Your task to perform on an android device: move a message to another label in the gmail app Image 0: 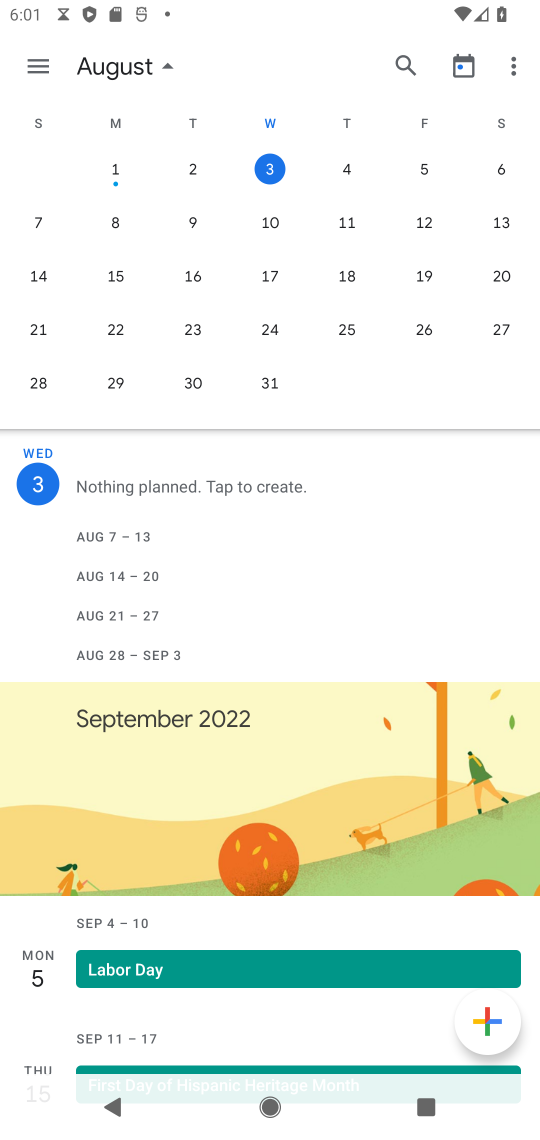
Step 0: press home button
Your task to perform on an android device: move a message to another label in the gmail app Image 1: 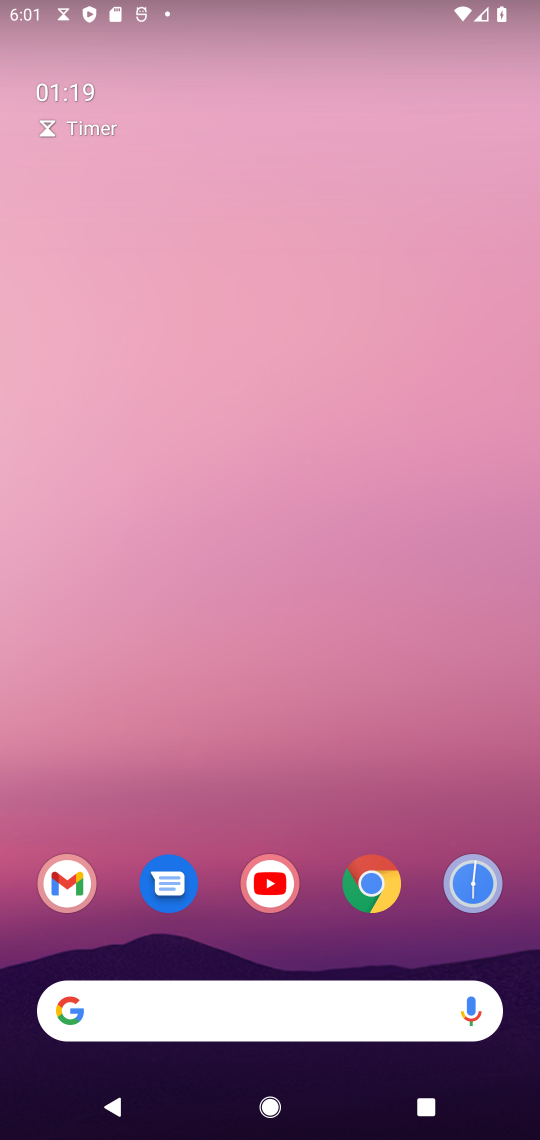
Step 1: click (64, 876)
Your task to perform on an android device: move a message to another label in the gmail app Image 2: 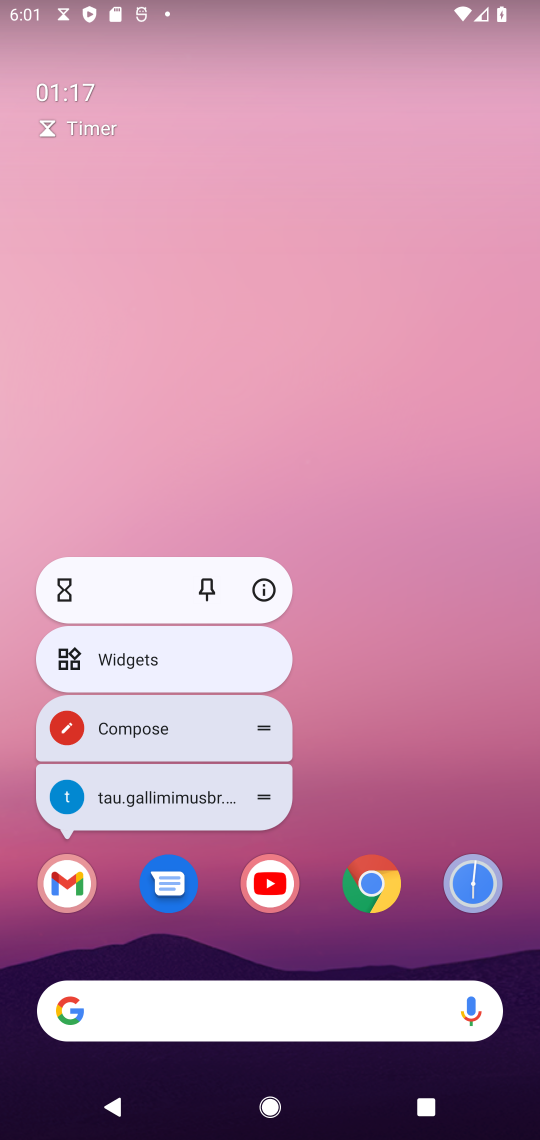
Step 2: click (64, 876)
Your task to perform on an android device: move a message to another label in the gmail app Image 3: 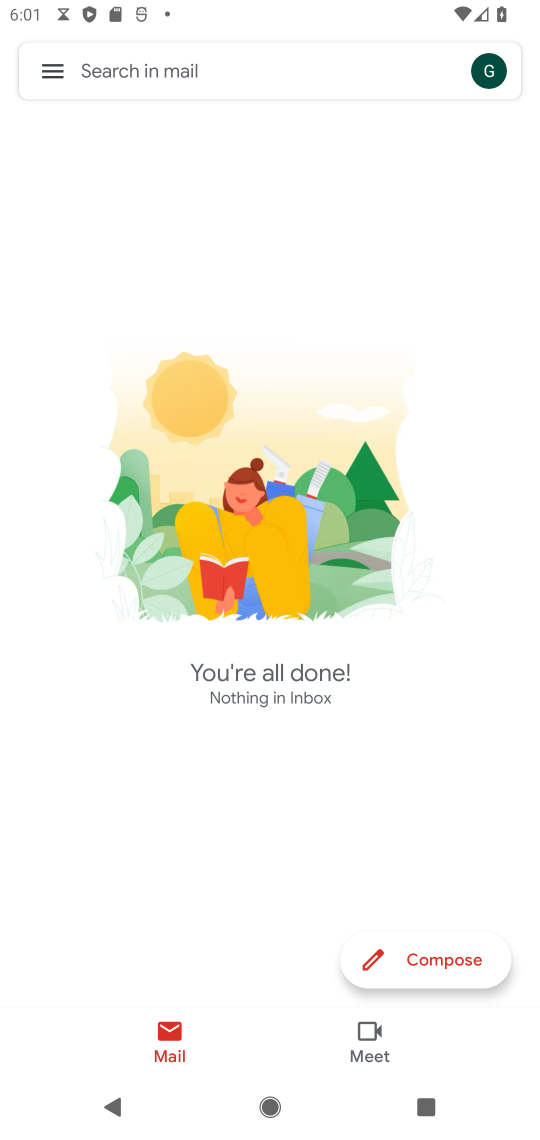
Step 3: click (50, 75)
Your task to perform on an android device: move a message to another label in the gmail app Image 4: 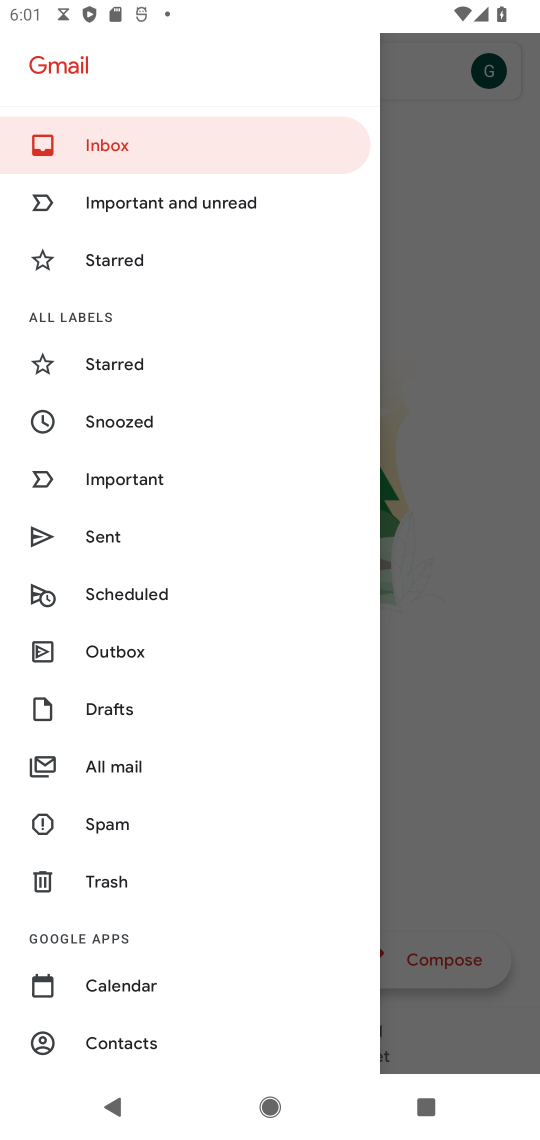
Step 4: click (123, 137)
Your task to perform on an android device: move a message to another label in the gmail app Image 5: 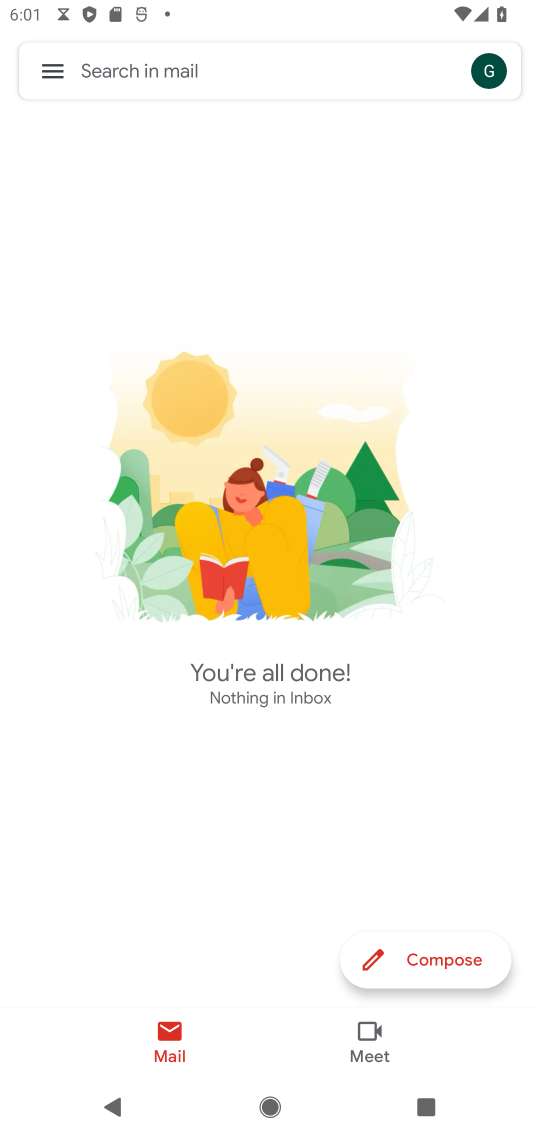
Step 5: task complete